Your task to perform on an android device: Search for "logitech g pro" on amazon, select the first entry, and add it to the cart. Image 0: 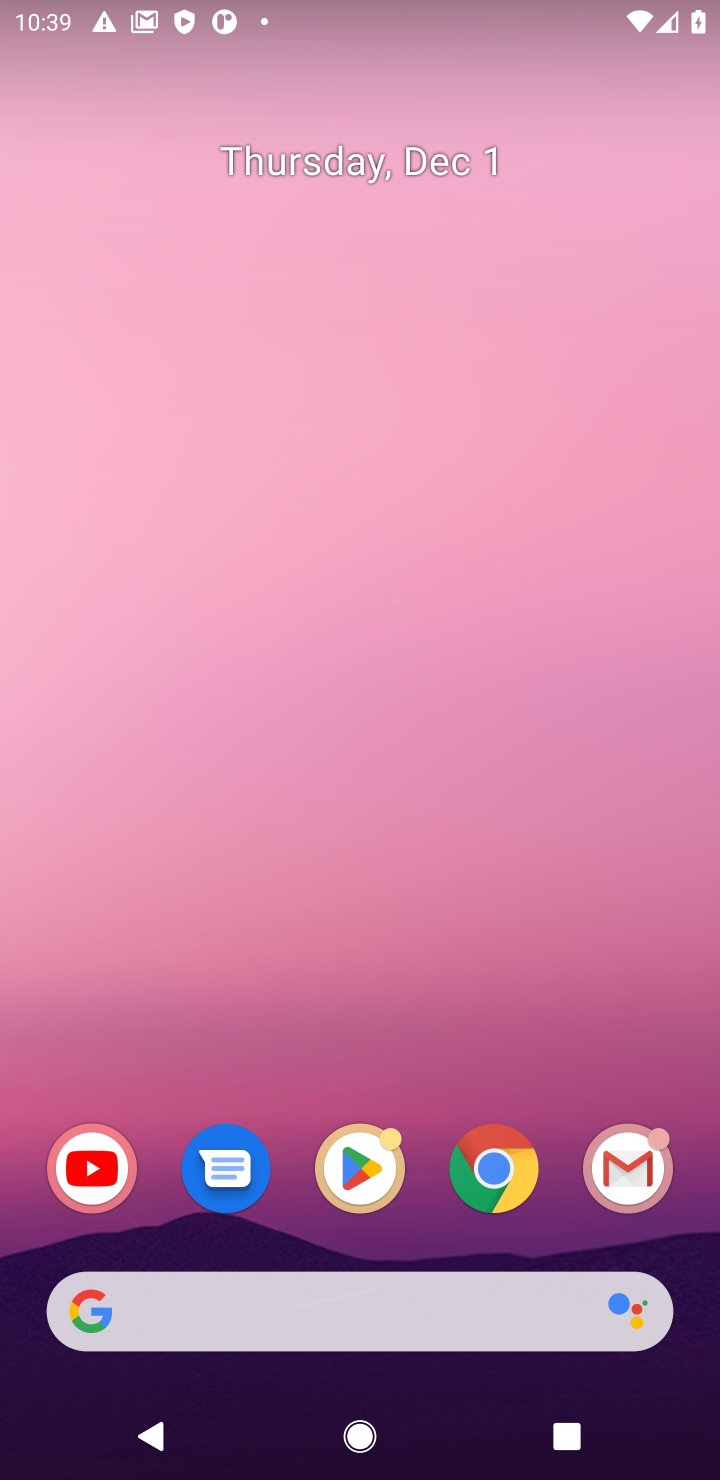
Step 0: click (493, 1187)
Your task to perform on an android device: Search for "logitech g pro" on amazon, select the first entry, and add it to the cart. Image 1: 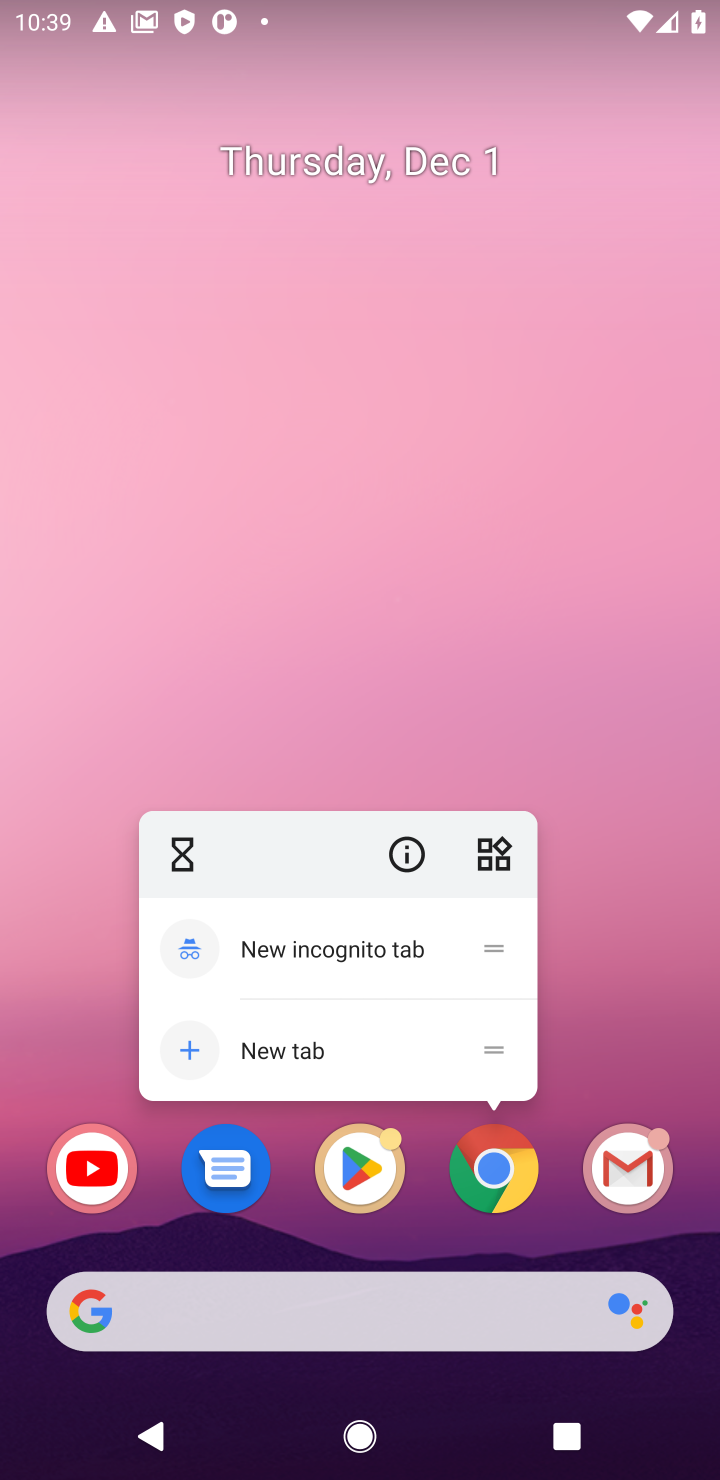
Step 1: click (493, 1184)
Your task to perform on an android device: Search for "logitech g pro" on amazon, select the first entry, and add it to the cart. Image 2: 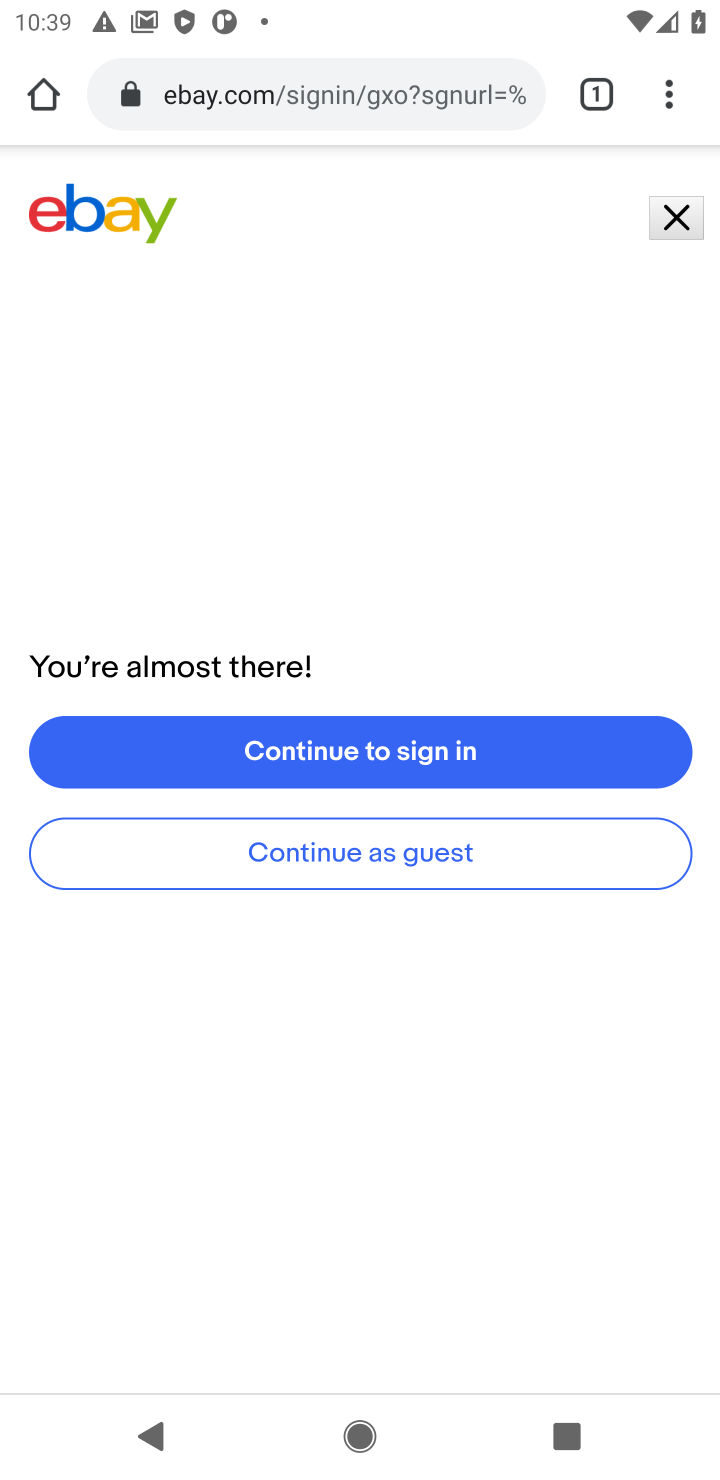
Step 2: click (293, 94)
Your task to perform on an android device: Search for "logitech g pro" on amazon, select the first entry, and add it to the cart. Image 3: 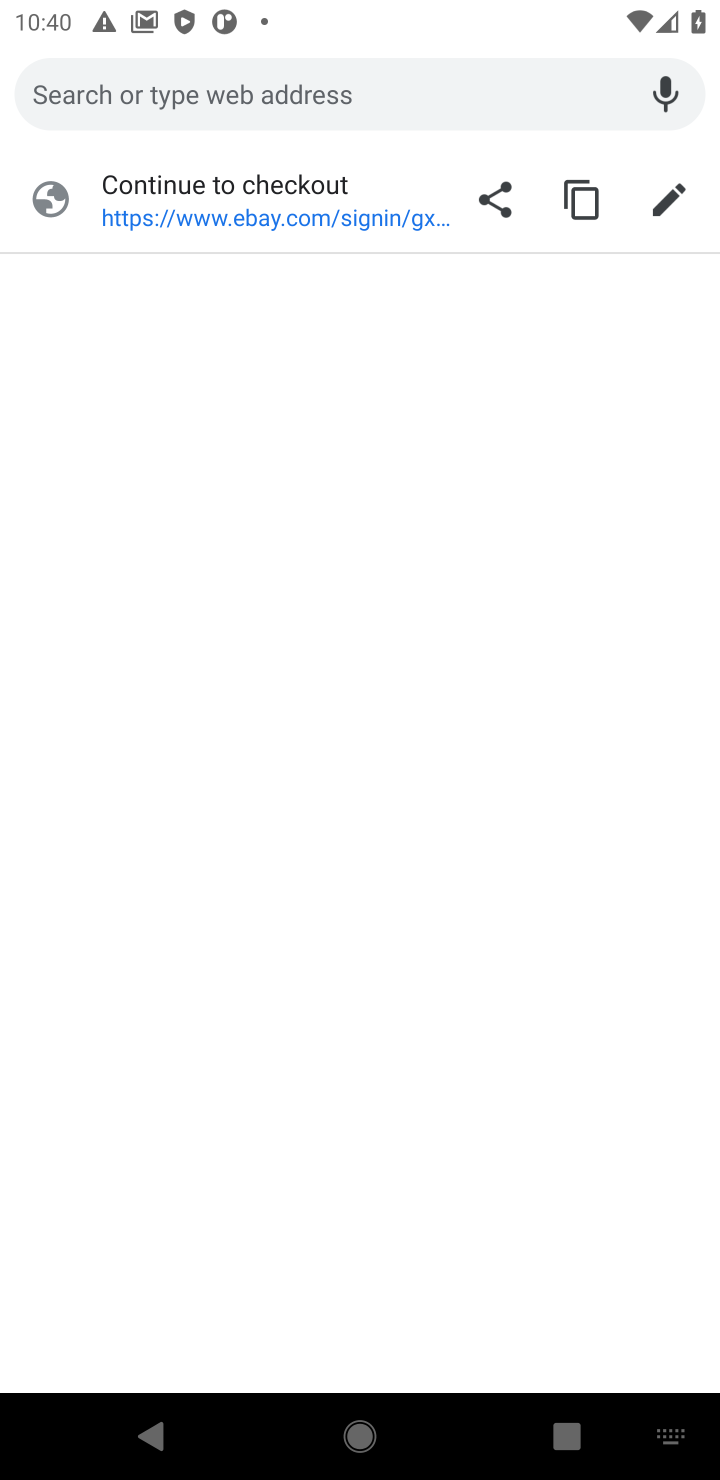
Step 3: type "amazon.com"
Your task to perform on an android device: Search for "logitech g pro" on amazon, select the first entry, and add it to the cart. Image 4: 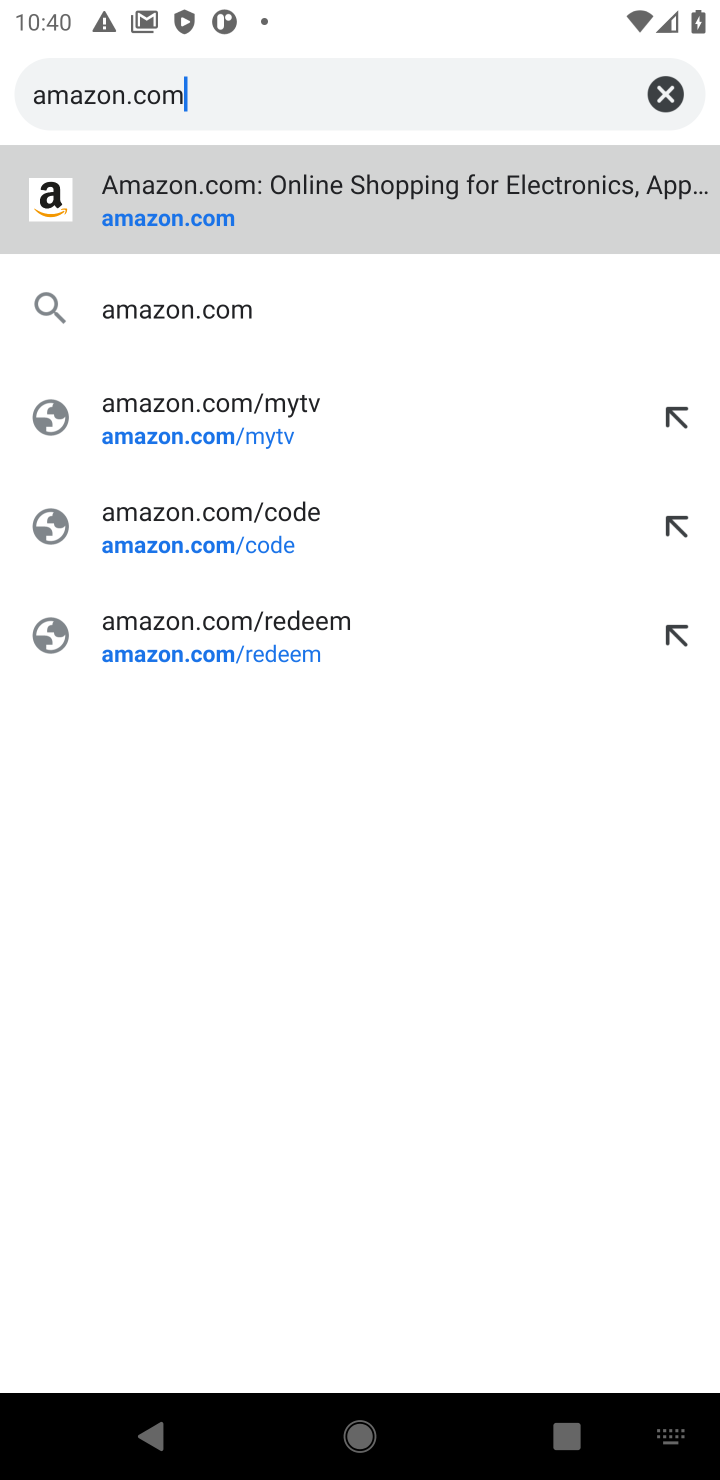
Step 4: click (165, 202)
Your task to perform on an android device: Search for "logitech g pro" on amazon, select the first entry, and add it to the cart. Image 5: 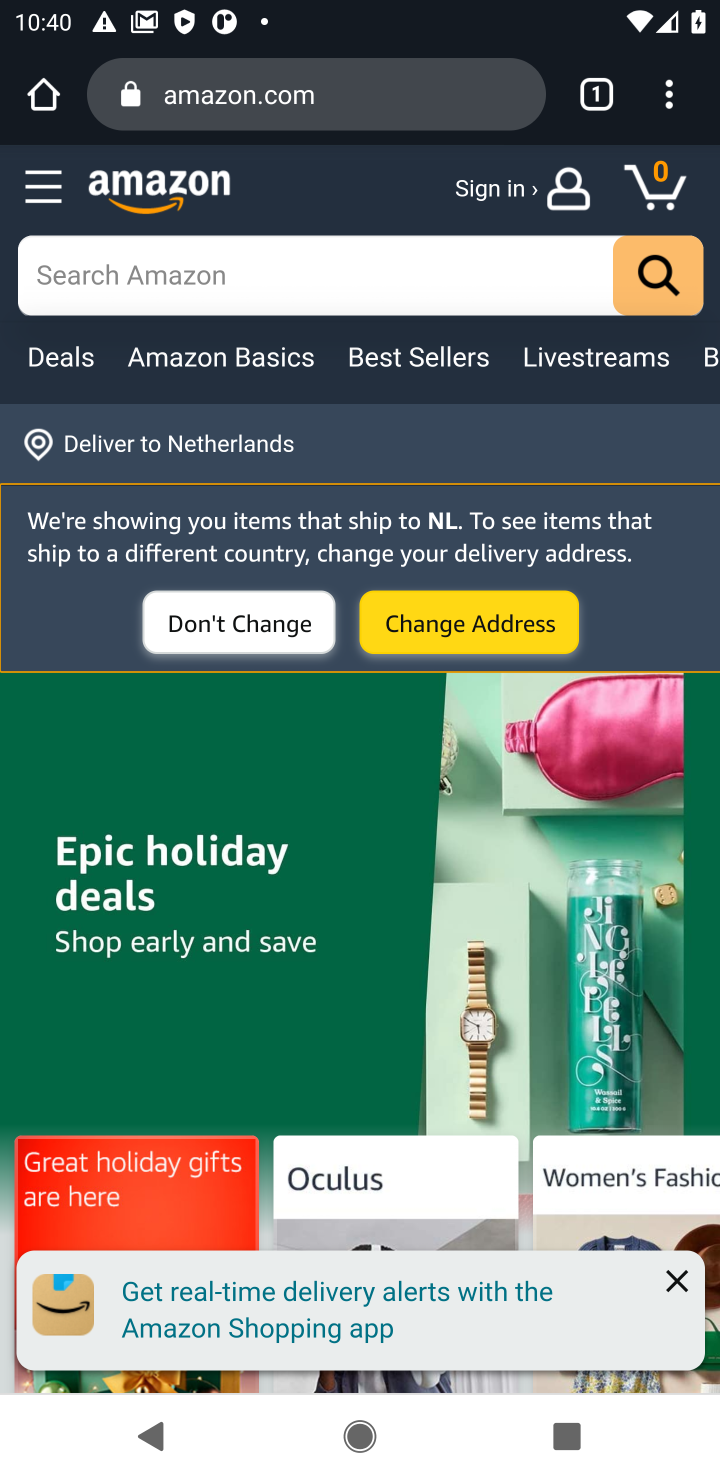
Step 5: click (127, 265)
Your task to perform on an android device: Search for "logitech g pro" on amazon, select the first entry, and add it to the cart. Image 6: 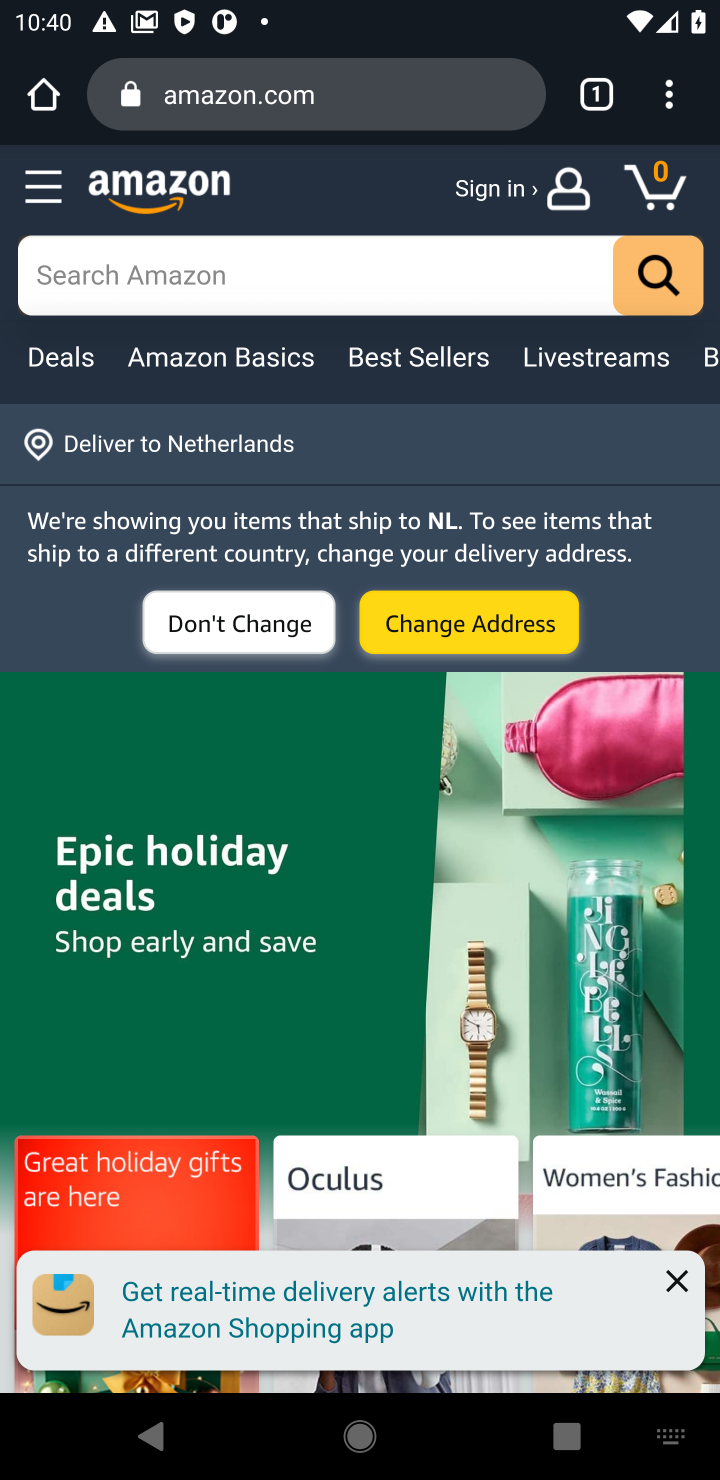
Step 6: type "logitech g pro"
Your task to perform on an android device: Search for "logitech g pro" on amazon, select the first entry, and add it to the cart. Image 7: 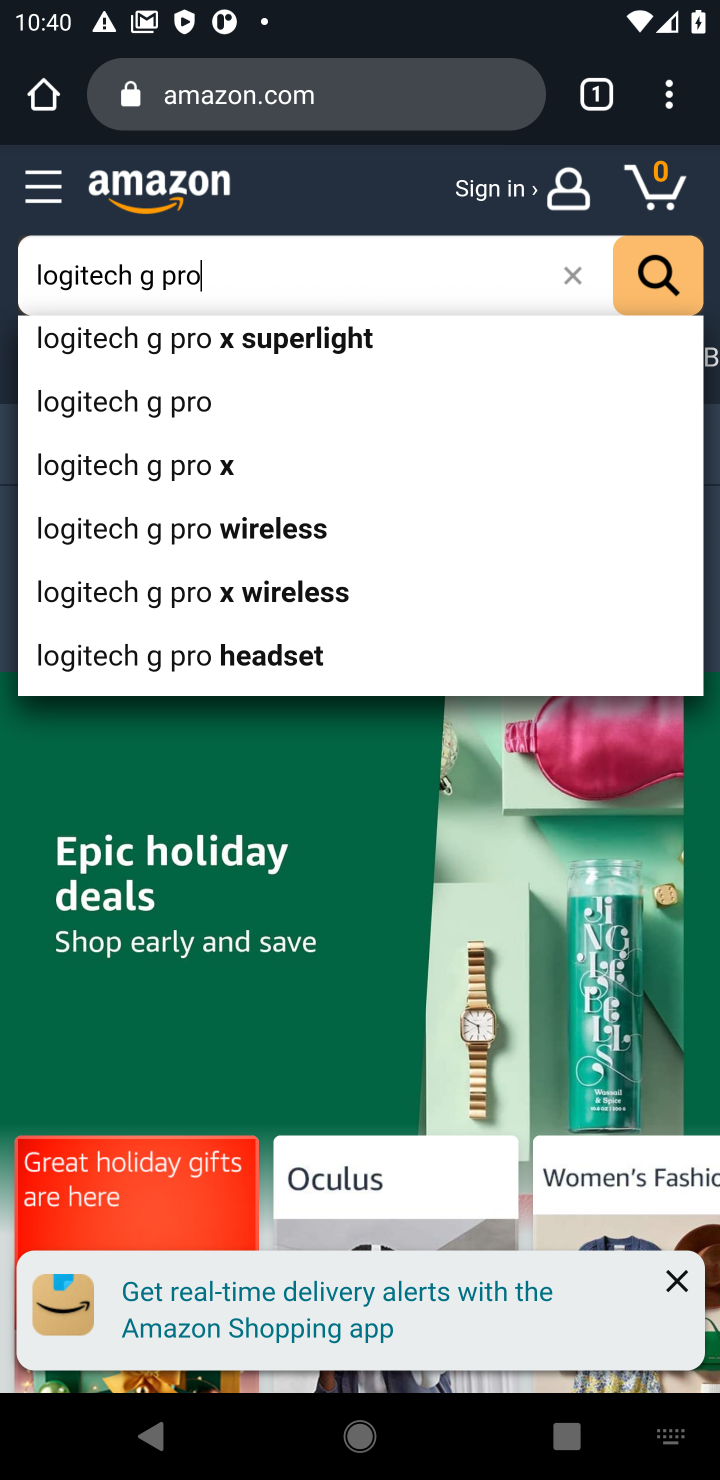
Step 7: click (167, 401)
Your task to perform on an android device: Search for "logitech g pro" on amazon, select the first entry, and add it to the cart. Image 8: 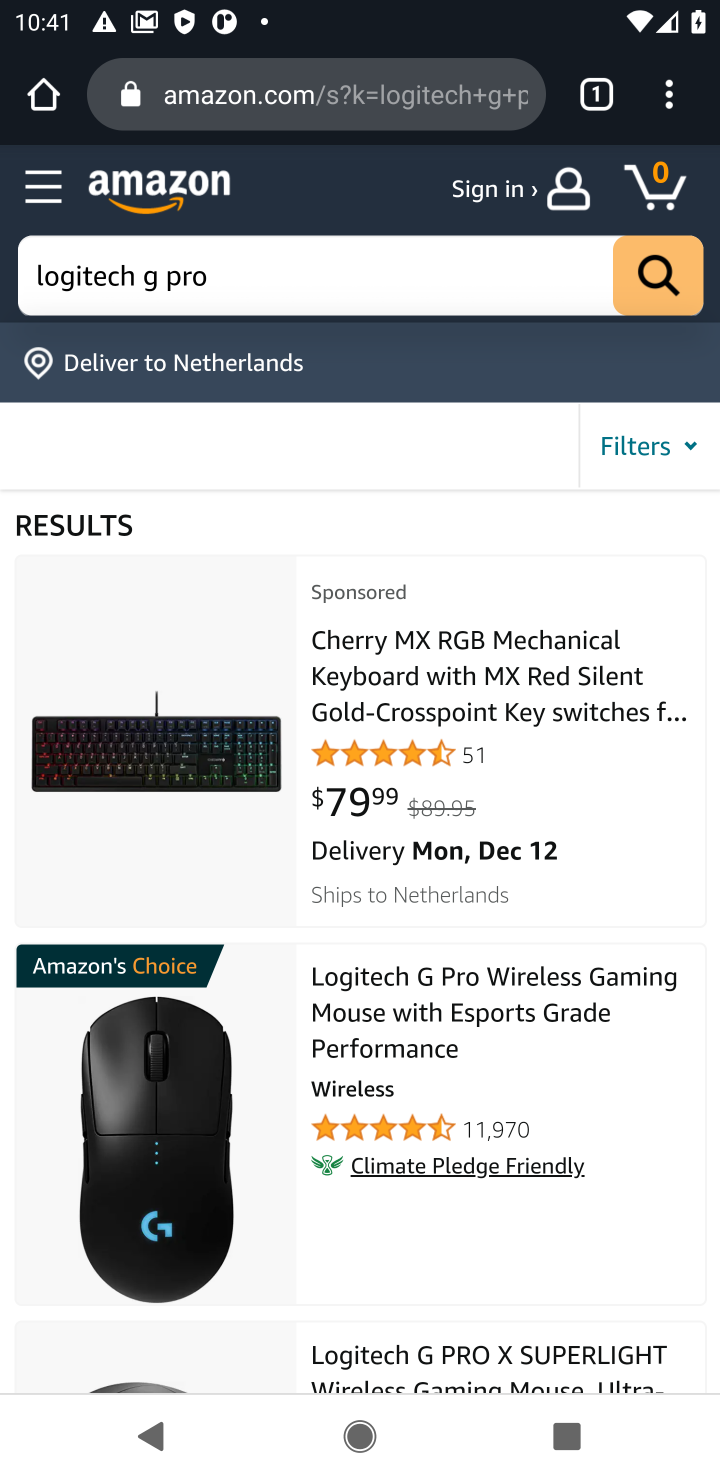
Step 8: task complete